Your task to perform on an android device: stop showing notifications on the lock screen Image 0: 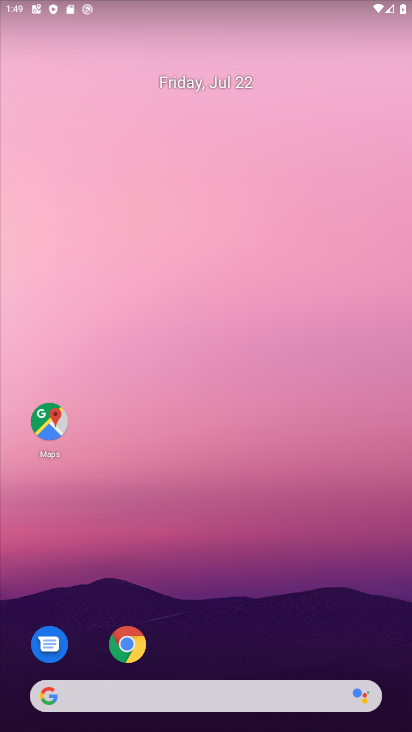
Step 0: drag from (222, 663) to (210, 137)
Your task to perform on an android device: stop showing notifications on the lock screen Image 1: 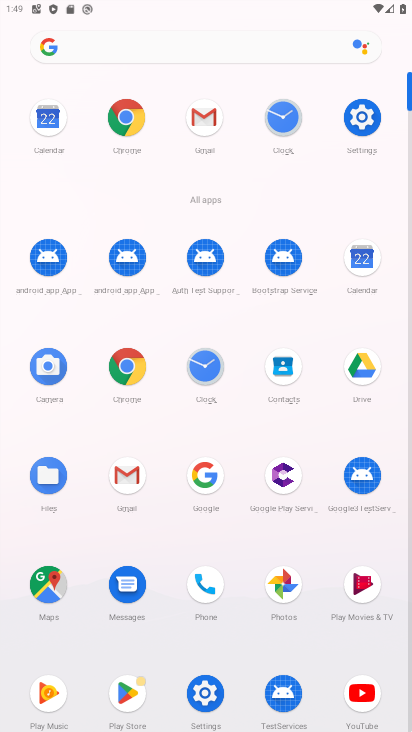
Step 1: click (368, 125)
Your task to perform on an android device: stop showing notifications on the lock screen Image 2: 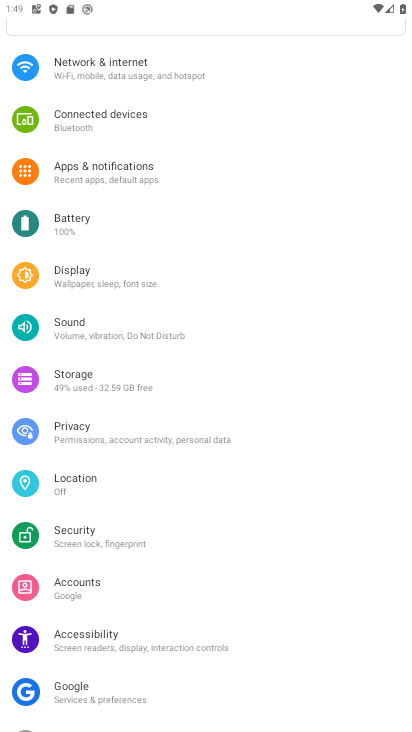
Step 2: click (119, 166)
Your task to perform on an android device: stop showing notifications on the lock screen Image 3: 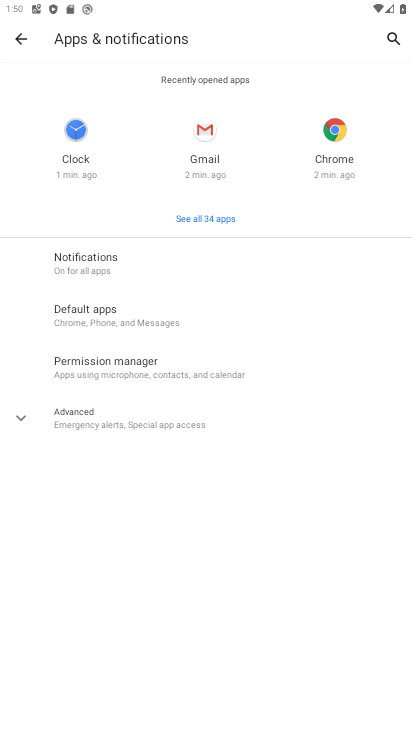
Step 3: click (131, 262)
Your task to perform on an android device: stop showing notifications on the lock screen Image 4: 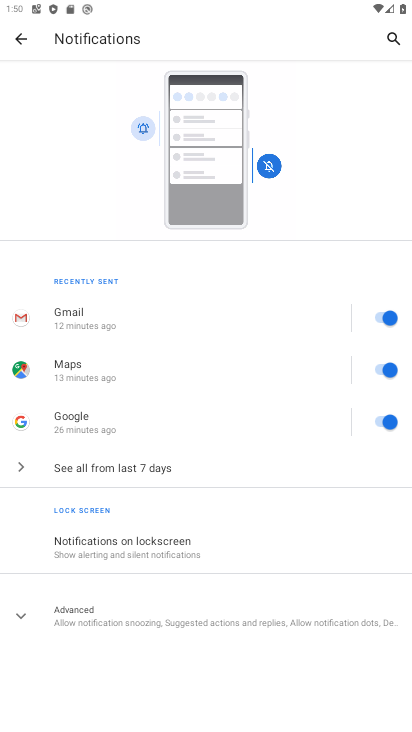
Step 4: click (174, 543)
Your task to perform on an android device: stop showing notifications on the lock screen Image 5: 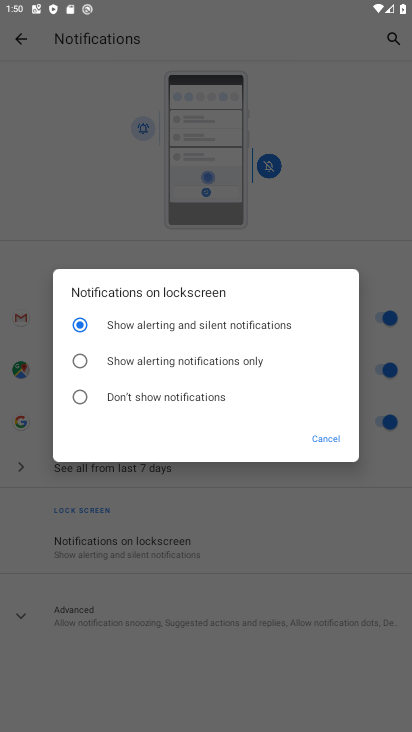
Step 5: click (132, 402)
Your task to perform on an android device: stop showing notifications on the lock screen Image 6: 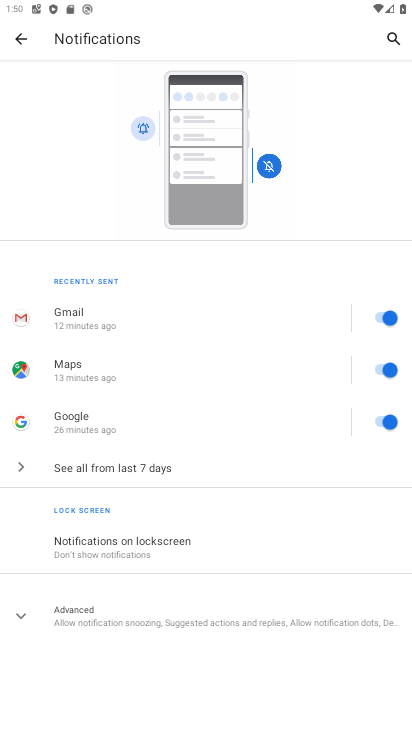
Step 6: task complete